Your task to perform on an android device: See recent photos Image 0: 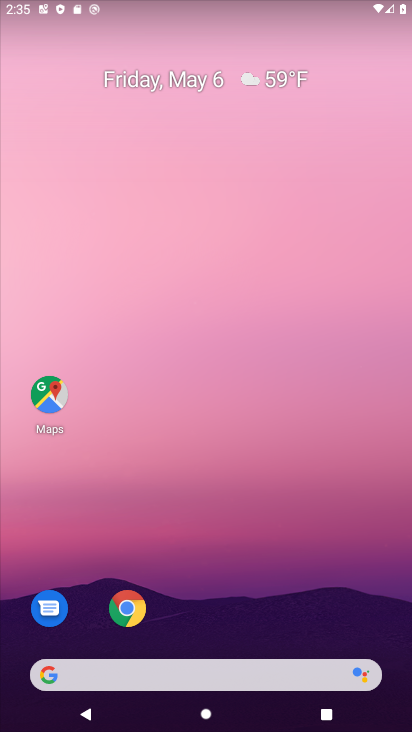
Step 0: drag from (207, 661) to (68, 166)
Your task to perform on an android device: See recent photos Image 1: 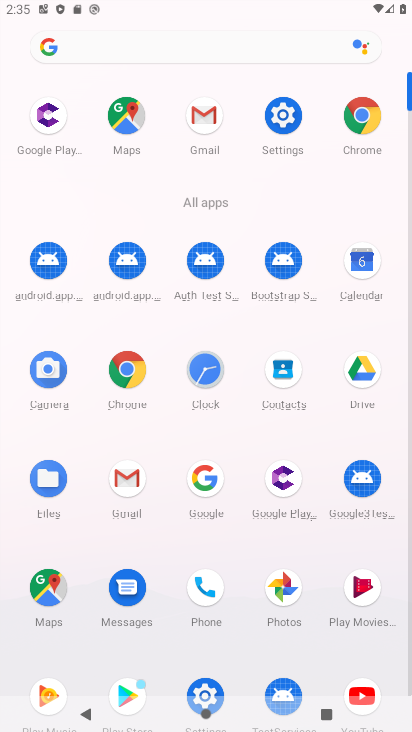
Step 1: click (274, 587)
Your task to perform on an android device: See recent photos Image 2: 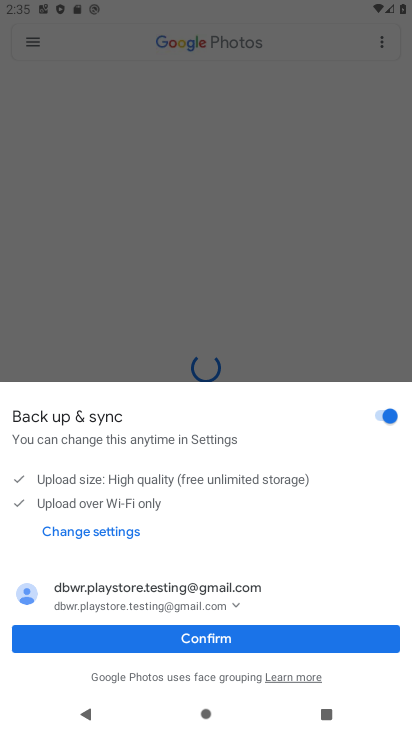
Step 2: click (237, 642)
Your task to perform on an android device: See recent photos Image 3: 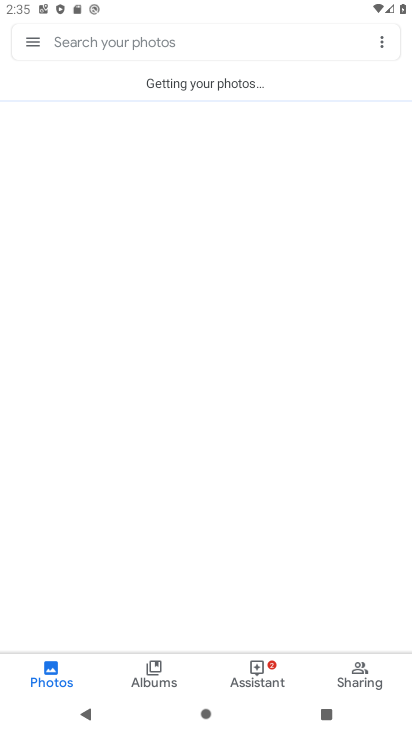
Step 3: click (33, 33)
Your task to perform on an android device: See recent photos Image 4: 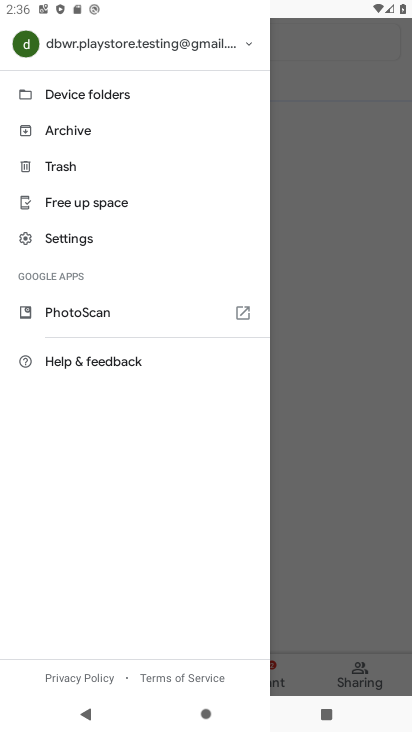
Step 4: click (284, 211)
Your task to perform on an android device: See recent photos Image 5: 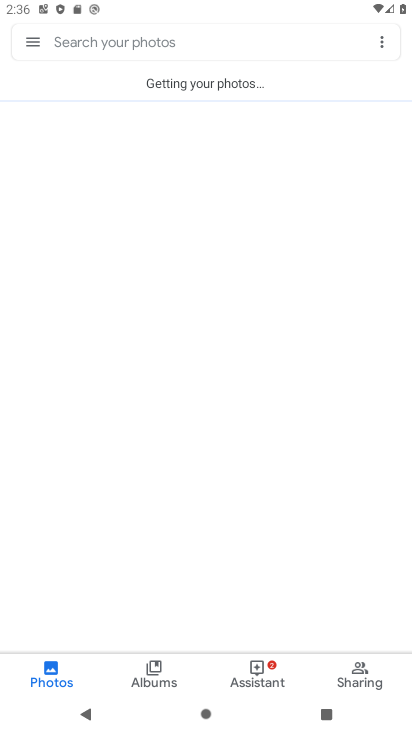
Step 5: task complete